Your task to perform on an android device: Open Youtube and go to "Your channel" Image 0: 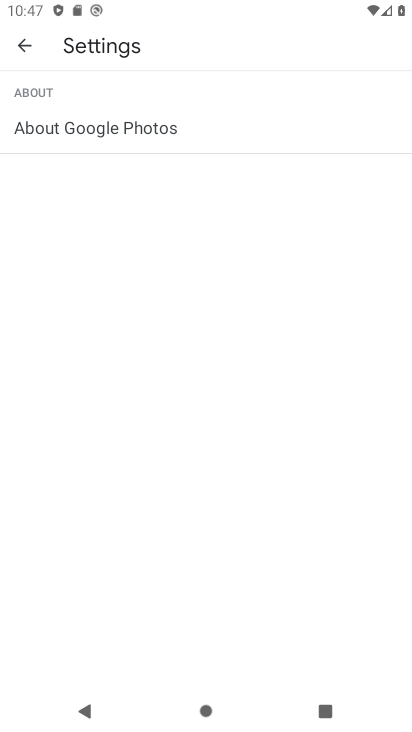
Step 0: press back button
Your task to perform on an android device: Open Youtube and go to "Your channel" Image 1: 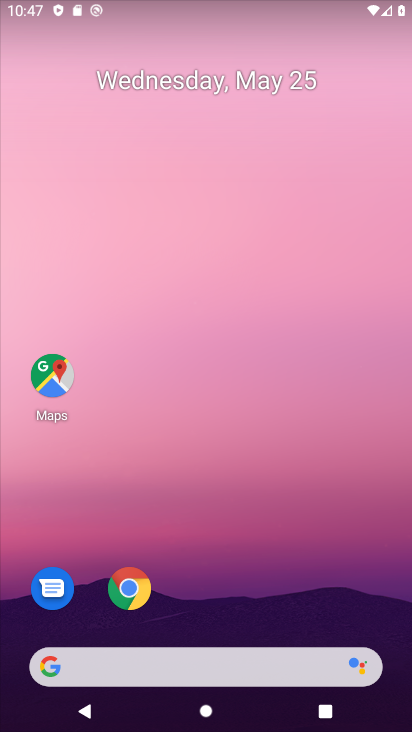
Step 1: drag from (258, 563) to (178, 37)
Your task to perform on an android device: Open Youtube and go to "Your channel" Image 2: 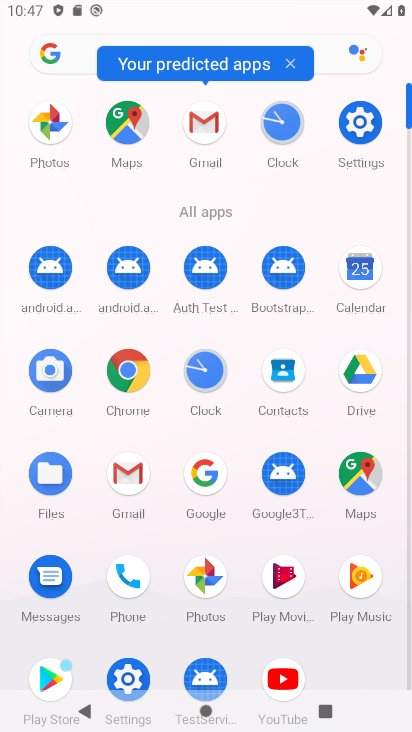
Step 2: drag from (327, 643) to (322, 463)
Your task to perform on an android device: Open Youtube and go to "Your channel" Image 3: 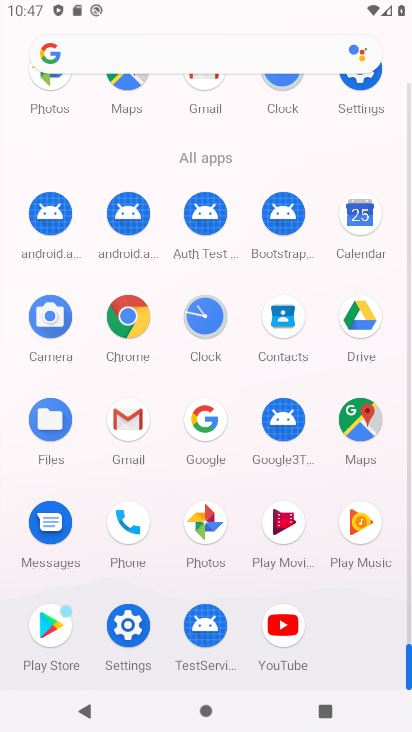
Step 3: click (285, 623)
Your task to perform on an android device: Open Youtube and go to "Your channel" Image 4: 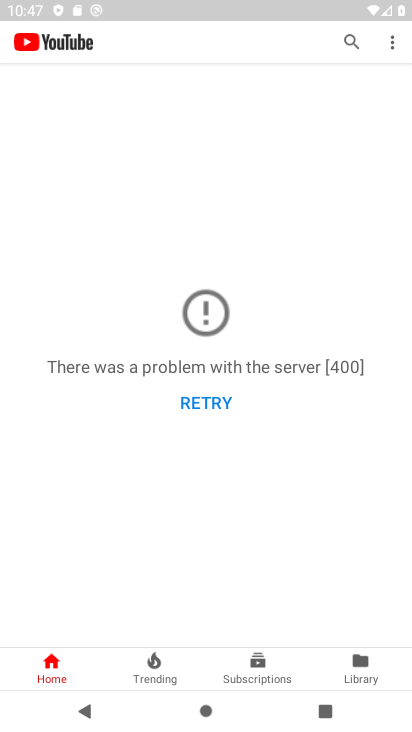
Step 4: click (198, 403)
Your task to perform on an android device: Open Youtube and go to "Your channel" Image 5: 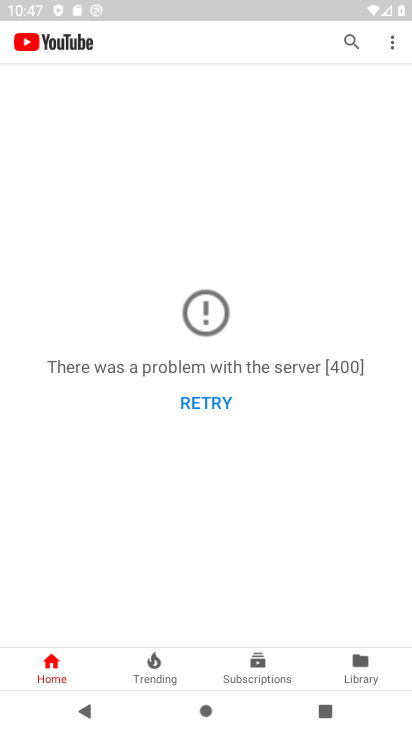
Step 5: click (198, 403)
Your task to perform on an android device: Open Youtube and go to "Your channel" Image 6: 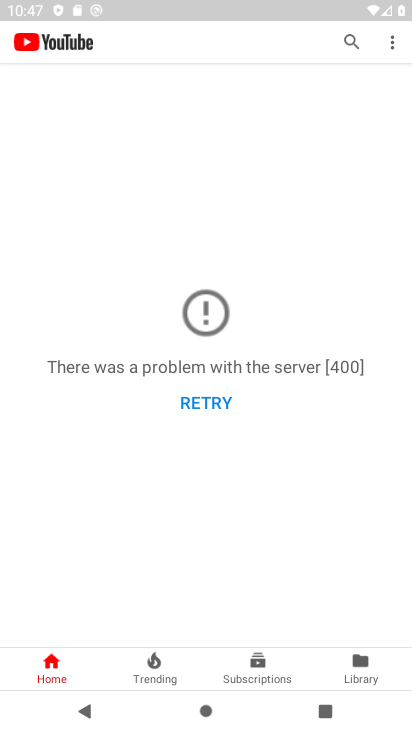
Step 6: click (198, 403)
Your task to perform on an android device: Open Youtube and go to "Your channel" Image 7: 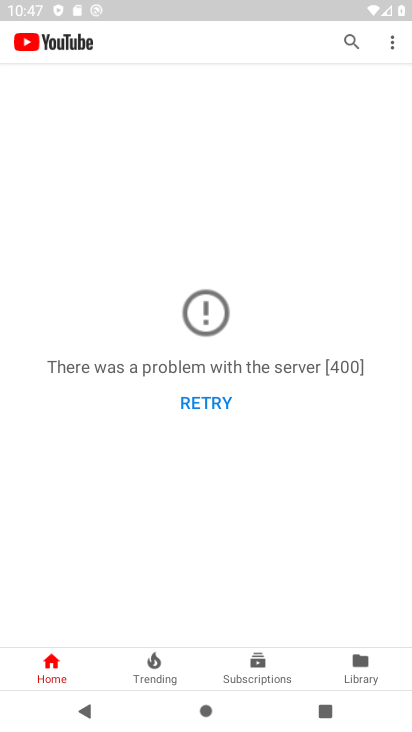
Step 7: click (198, 403)
Your task to perform on an android device: Open Youtube and go to "Your channel" Image 8: 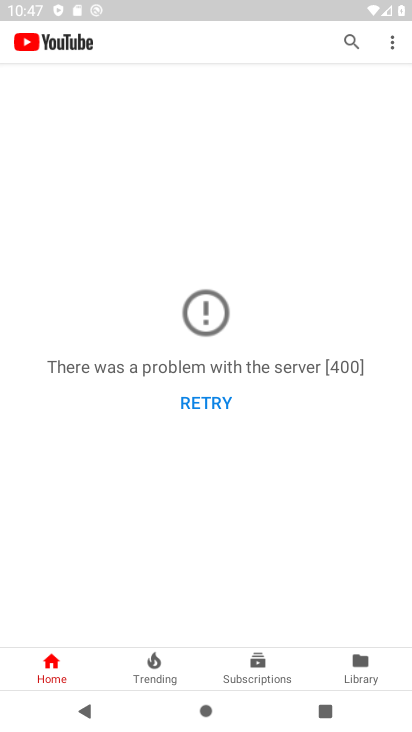
Step 8: task complete